Your task to perform on an android device: Go to Wikipedia Image 0: 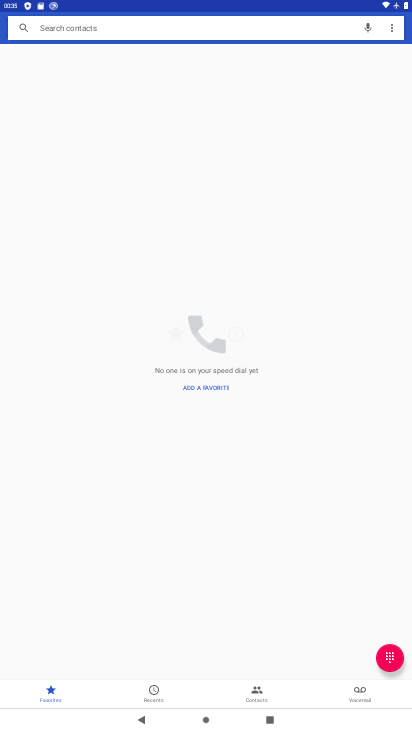
Step 0: press home button
Your task to perform on an android device: Go to Wikipedia Image 1: 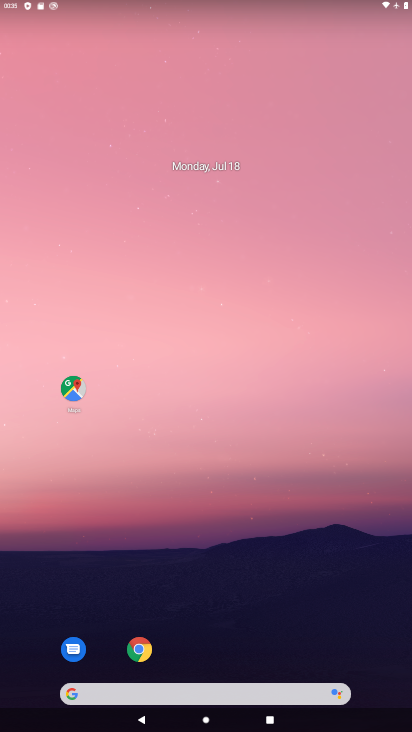
Step 1: click (142, 650)
Your task to perform on an android device: Go to Wikipedia Image 2: 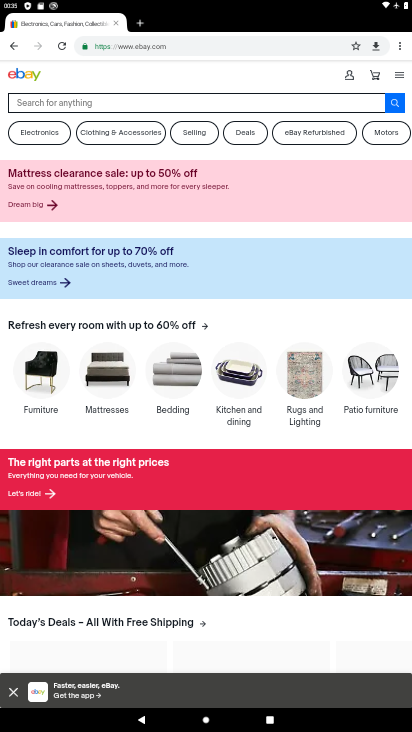
Step 2: press back button
Your task to perform on an android device: Go to Wikipedia Image 3: 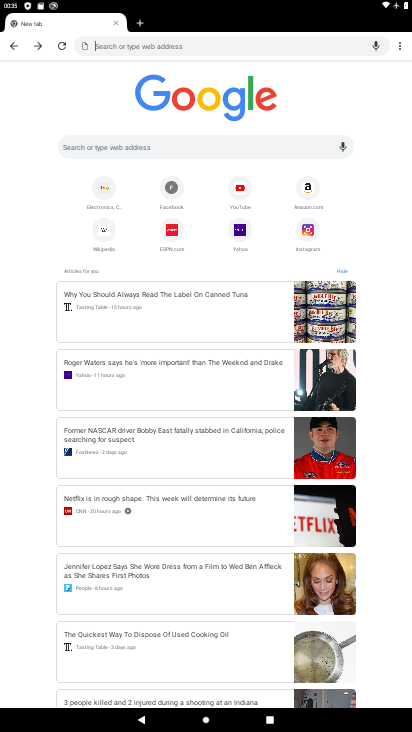
Step 3: click (99, 241)
Your task to perform on an android device: Go to Wikipedia Image 4: 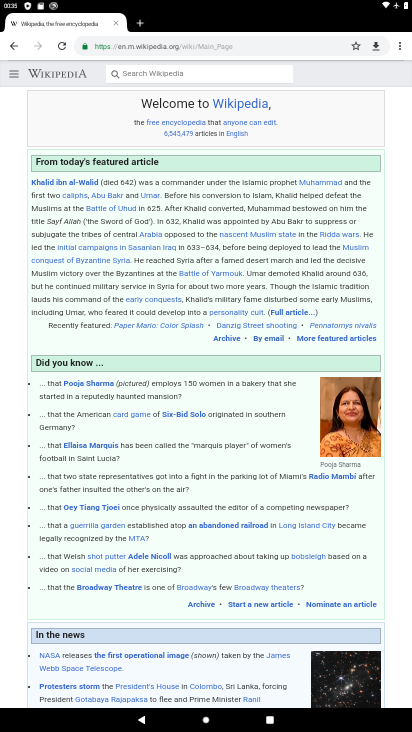
Step 4: task complete